Your task to perform on an android device: Is it going to rain this weekend? Image 0: 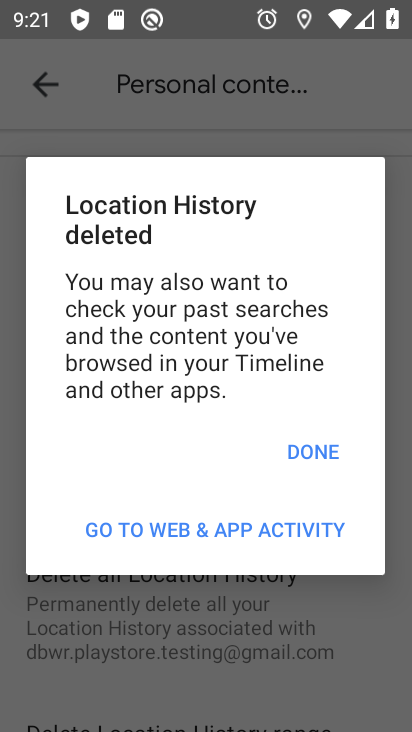
Step 0: press home button
Your task to perform on an android device: Is it going to rain this weekend? Image 1: 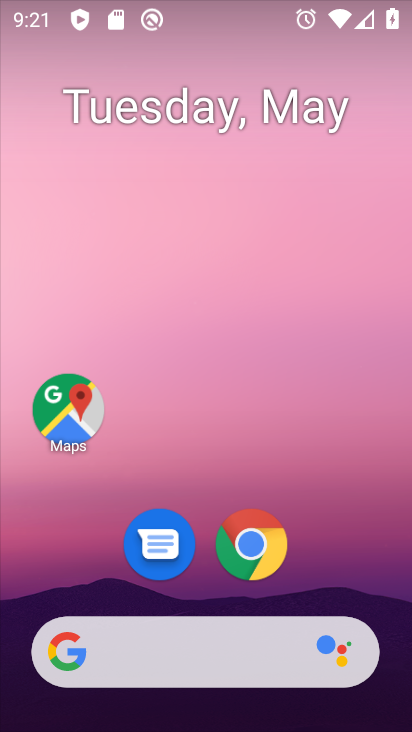
Step 1: click (269, 540)
Your task to perform on an android device: Is it going to rain this weekend? Image 2: 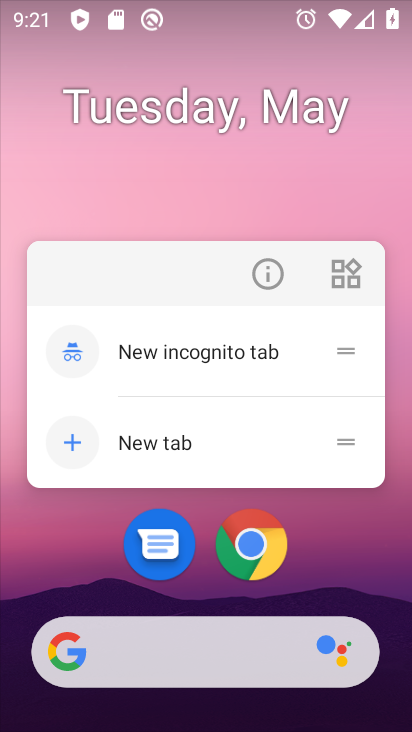
Step 2: click (278, 545)
Your task to perform on an android device: Is it going to rain this weekend? Image 3: 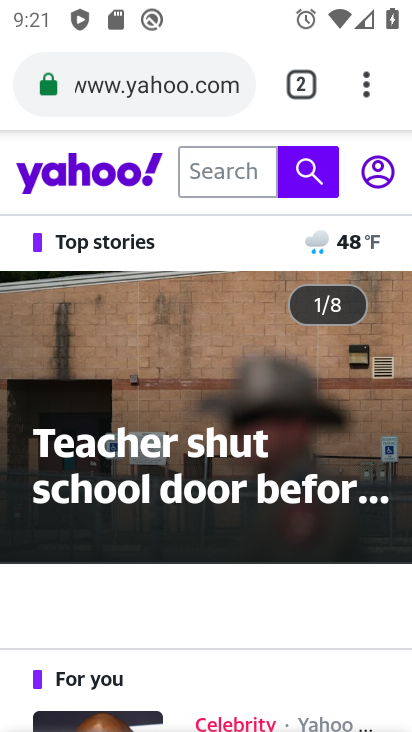
Step 3: click (160, 87)
Your task to perform on an android device: Is it going to rain this weekend? Image 4: 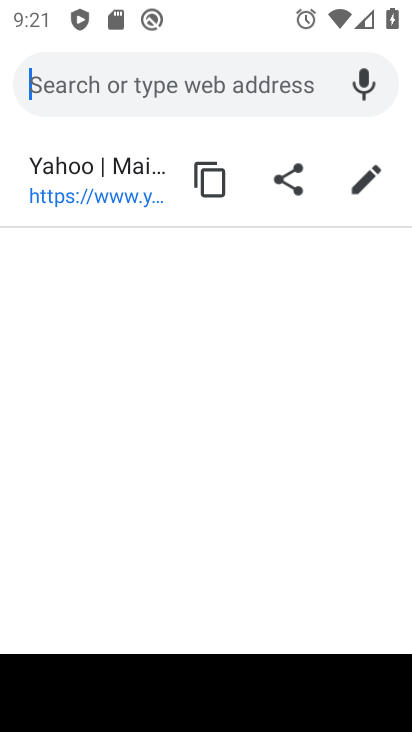
Step 4: type "is it going to rain this weekend"
Your task to perform on an android device: Is it going to rain this weekend? Image 5: 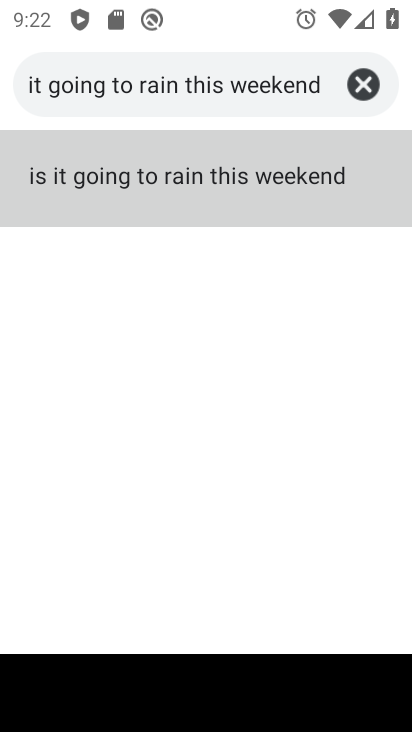
Step 5: click (106, 187)
Your task to perform on an android device: Is it going to rain this weekend? Image 6: 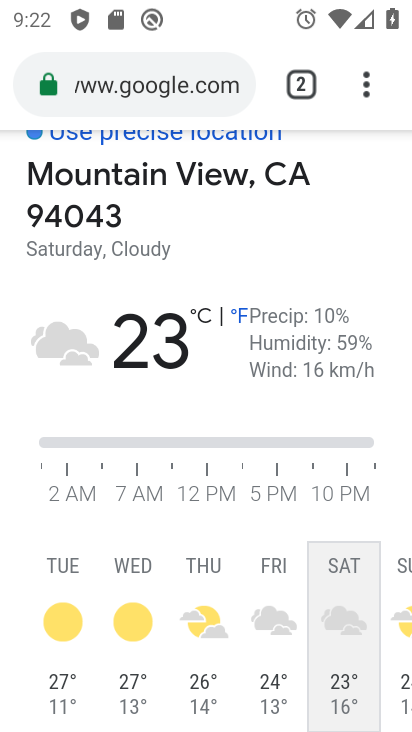
Step 6: task complete